Your task to perform on an android device: toggle improve location accuracy Image 0: 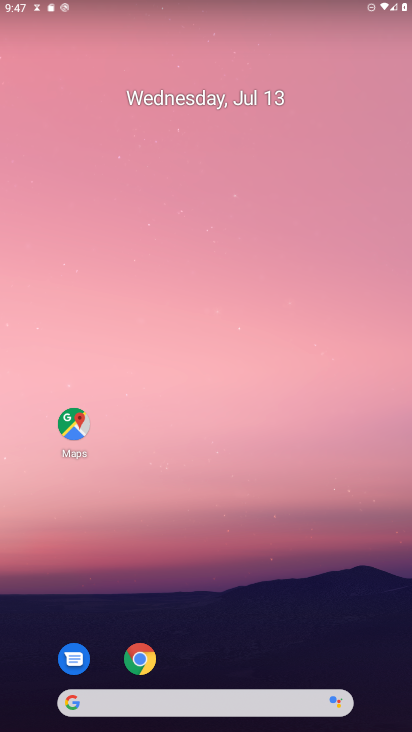
Step 0: press home button
Your task to perform on an android device: toggle improve location accuracy Image 1: 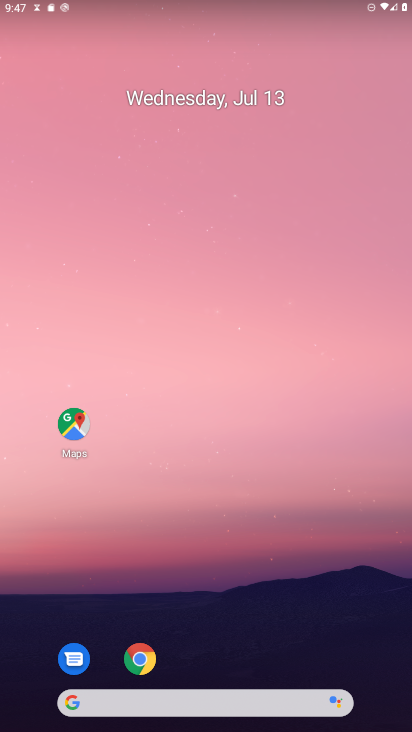
Step 1: drag from (180, 689) to (139, 126)
Your task to perform on an android device: toggle improve location accuracy Image 2: 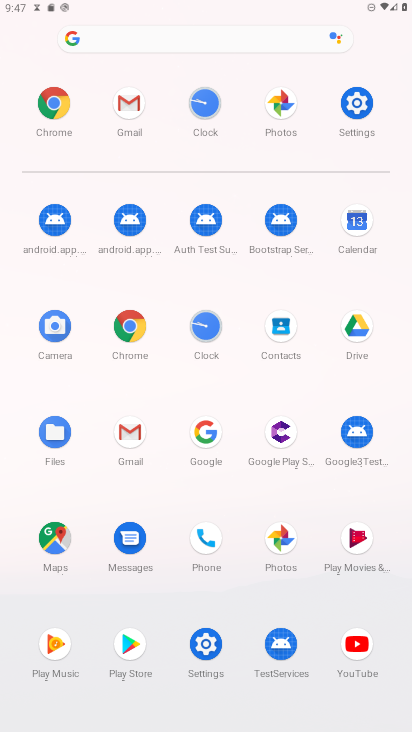
Step 2: click (362, 123)
Your task to perform on an android device: toggle improve location accuracy Image 3: 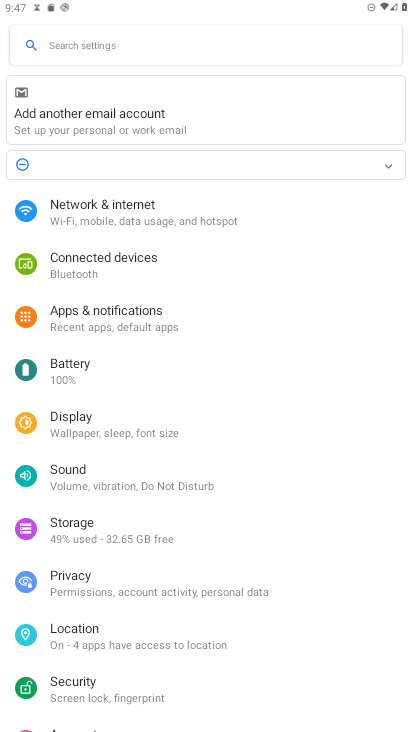
Step 3: click (93, 633)
Your task to perform on an android device: toggle improve location accuracy Image 4: 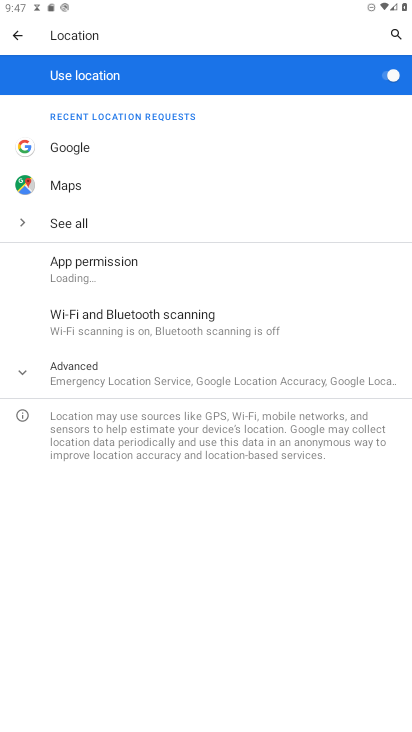
Step 4: click (93, 368)
Your task to perform on an android device: toggle improve location accuracy Image 5: 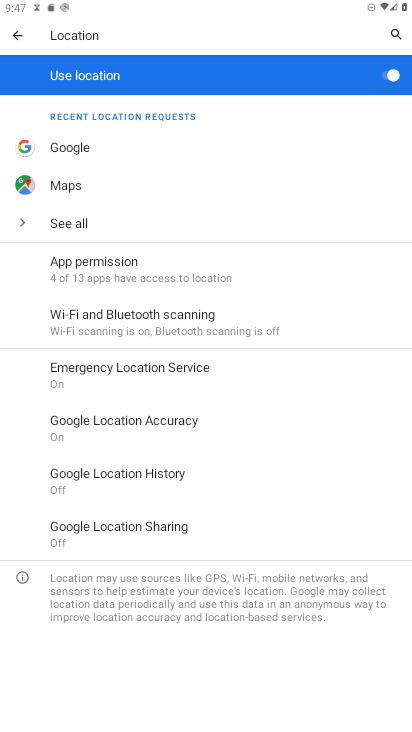
Step 5: click (168, 425)
Your task to perform on an android device: toggle improve location accuracy Image 6: 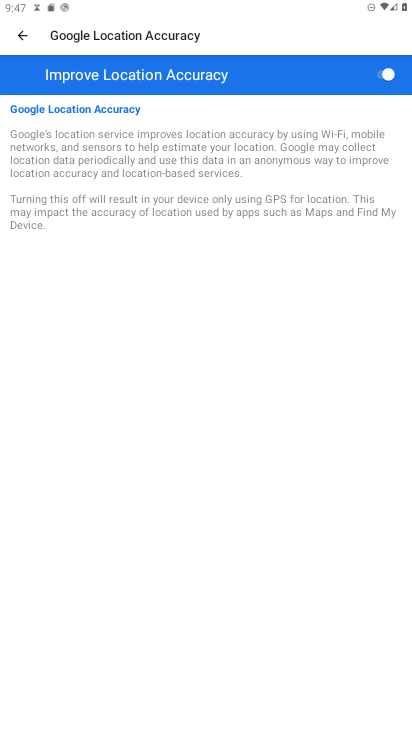
Step 6: click (387, 76)
Your task to perform on an android device: toggle improve location accuracy Image 7: 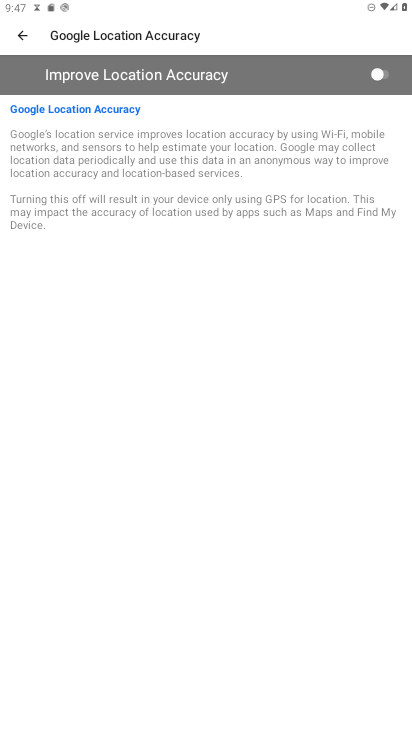
Step 7: task complete